Your task to perform on an android device: What's the weather today? Image 0: 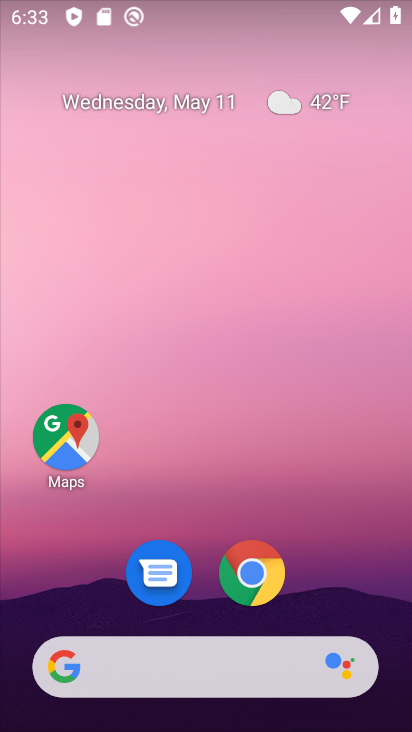
Step 0: drag from (312, 607) to (321, 164)
Your task to perform on an android device: What's the weather today? Image 1: 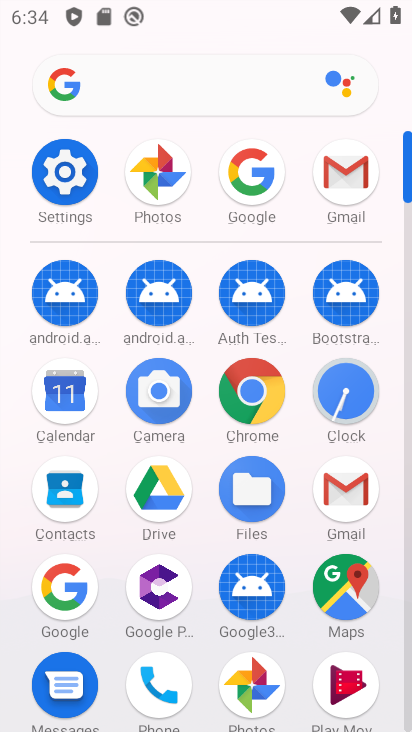
Step 1: drag from (199, 640) to (222, 287)
Your task to perform on an android device: What's the weather today? Image 2: 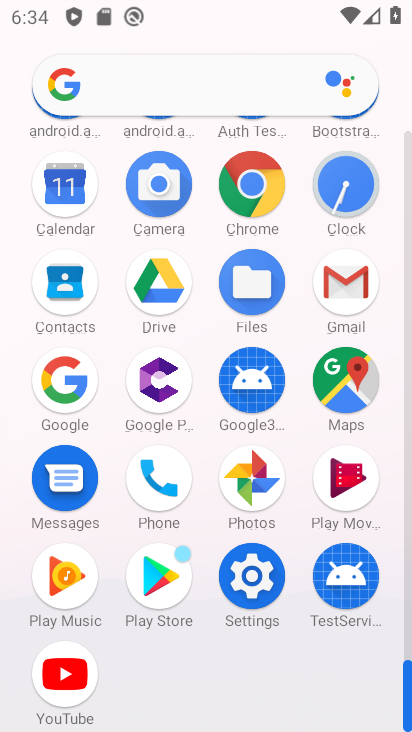
Step 2: drag from (205, 453) to (201, 512)
Your task to perform on an android device: What's the weather today? Image 3: 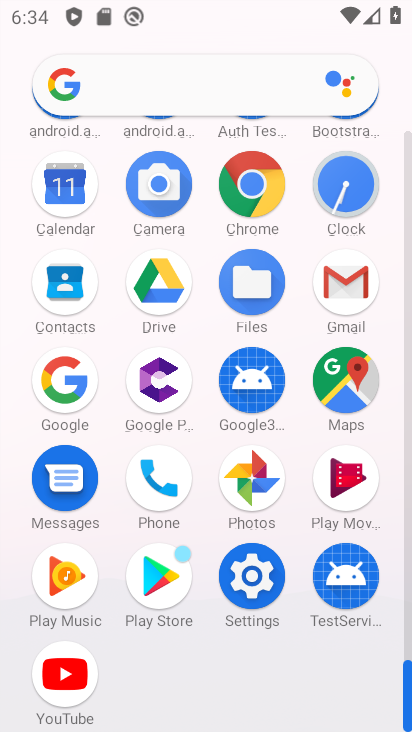
Step 3: drag from (201, 563) to (208, 644)
Your task to perform on an android device: What's the weather today? Image 4: 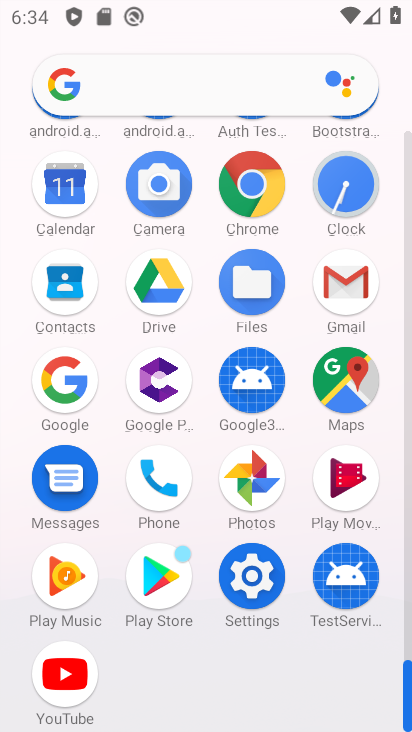
Step 4: drag from (199, 345) to (197, 717)
Your task to perform on an android device: What's the weather today? Image 5: 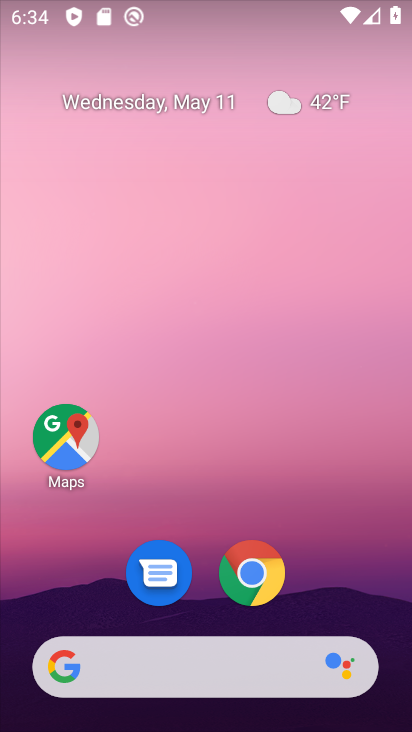
Step 5: drag from (200, 196) to (191, 474)
Your task to perform on an android device: What's the weather today? Image 6: 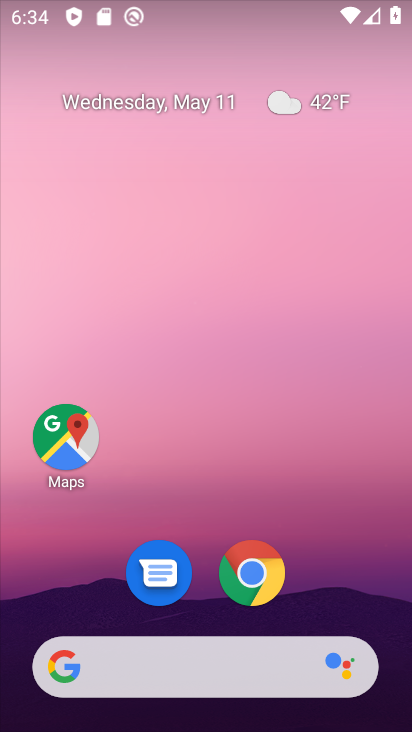
Step 6: drag from (317, 580) to (295, 132)
Your task to perform on an android device: What's the weather today? Image 7: 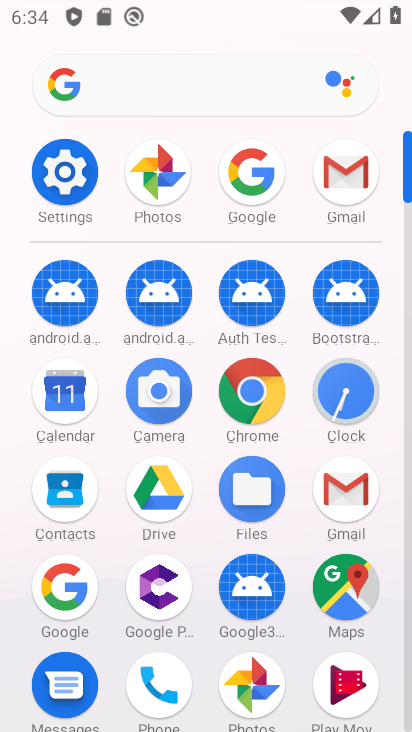
Step 7: click (78, 605)
Your task to perform on an android device: What's the weather today? Image 8: 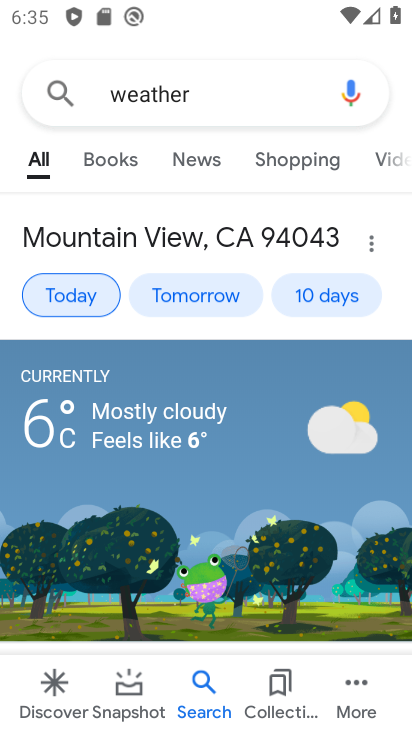
Step 8: task complete